Your task to perform on an android device: move an email to a new category in the gmail app Image 0: 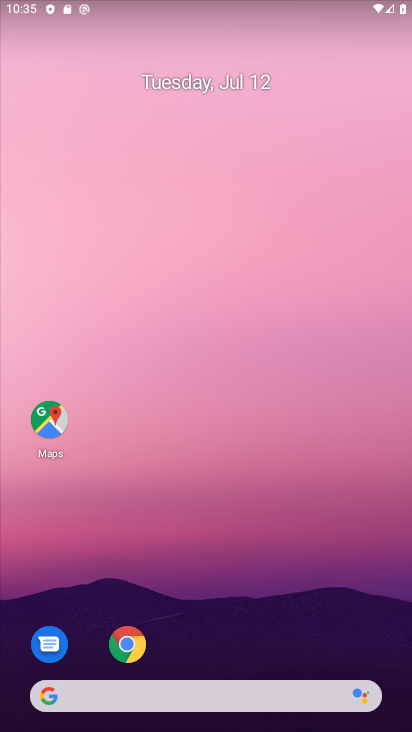
Step 0: drag from (180, 645) to (149, 324)
Your task to perform on an android device: move an email to a new category in the gmail app Image 1: 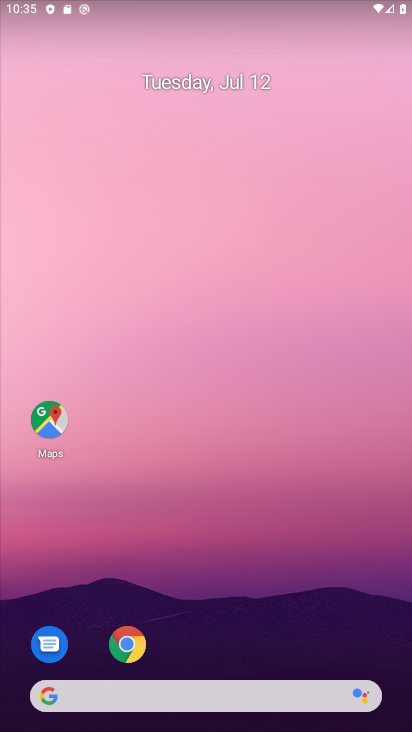
Step 1: drag from (227, 199) to (220, 152)
Your task to perform on an android device: move an email to a new category in the gmail app Image 2: 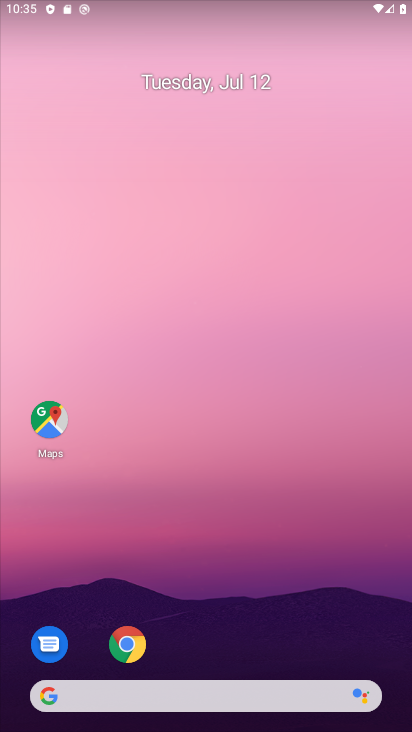
Step 2: drag from (185, 689) to (151, 89)
Your task to perform on an android device: move an email to a new category in the gmail app Image 3: 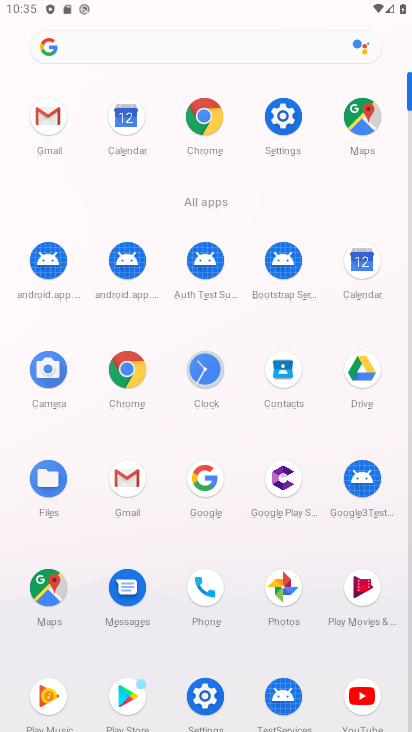
Step 3: click (132, 482)
Your task to perform on an android device: move an email to a new category in the gmail app Image 4: 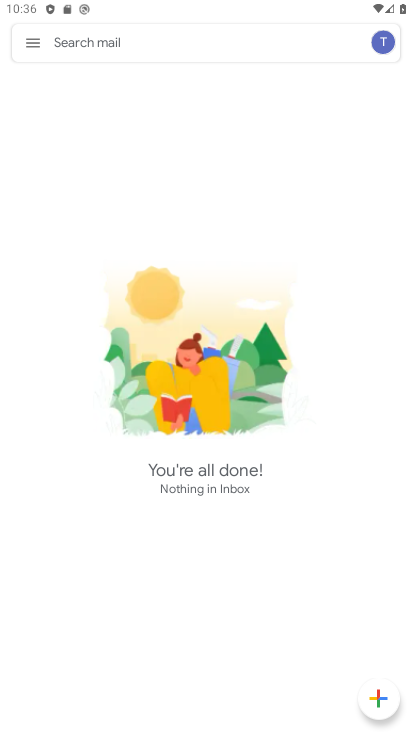
Step 4: task complete